Your task to perform on an android device: What's on my calendar today? Image 0: 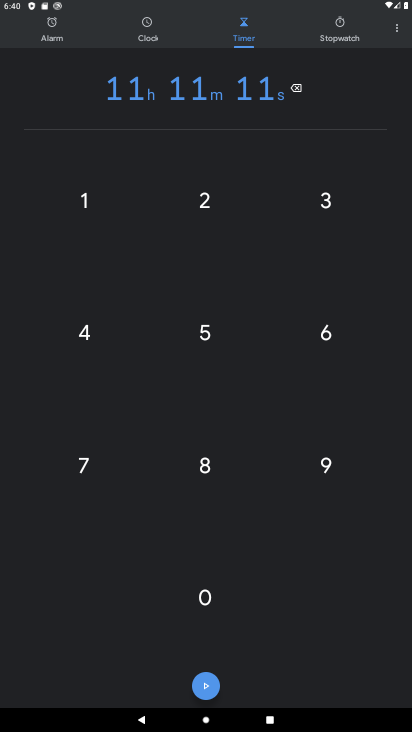
Step 0: press home button
Your task to perform on an android device: What's on my calendar today? Image 1: 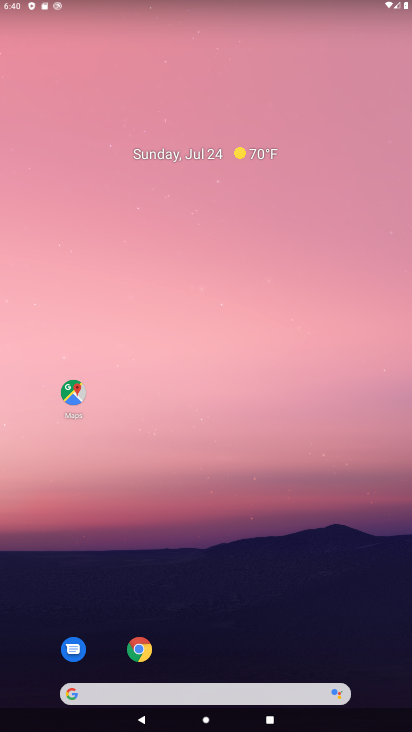
Step 1: drag from (251, 581) to (210, 36)
Your task to perform on an android device: What's on my calendar today? Image 2: 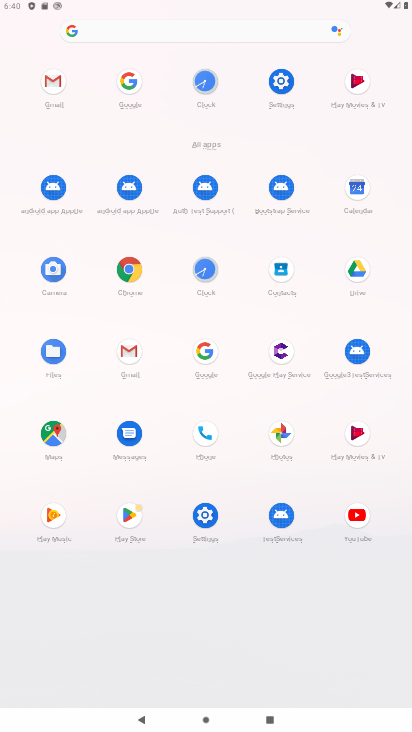
Step 2: click (354, 193)
Your task to perform on an android device: What's on my calendar today? Image 3: 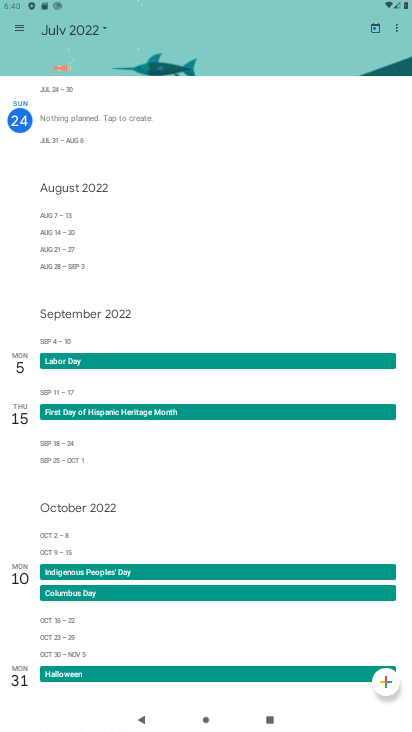
Step 3: click (17, 19)
Your task to perform on an android device: What's on my calendar today? Image 4: 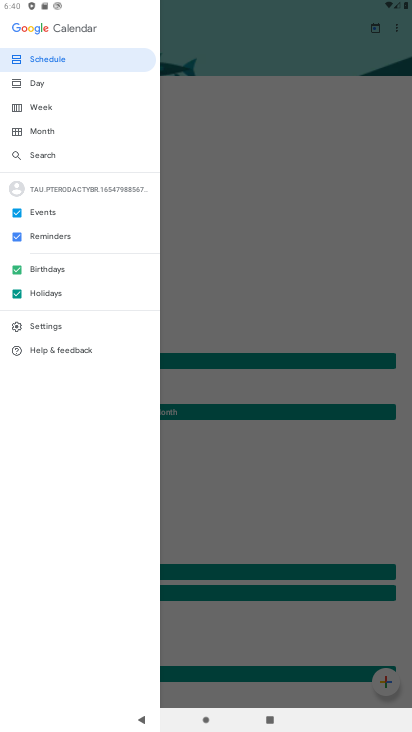
Step 4: click (34, 83)
Your task to perform on an android device: What's on my calendar today? Image 5: 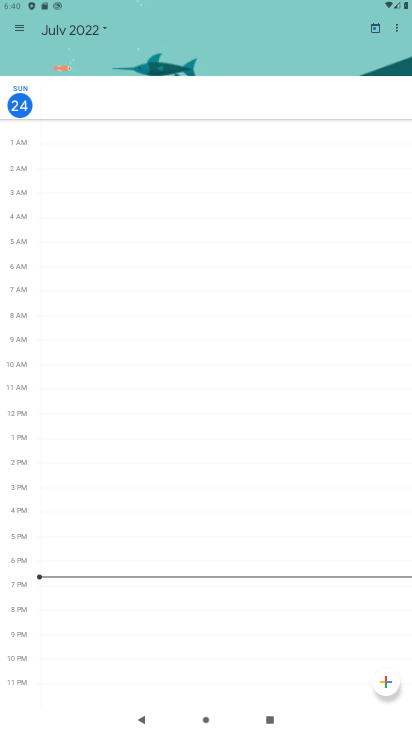
Step 5: task complete